Your task to perform on an android device: change your default location settings in chrome Image 0: 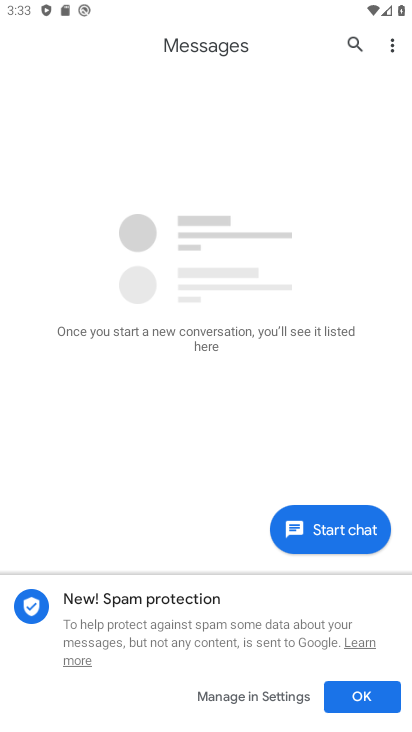
Step 0: press home button
Your task to perform on an android device: change your default location settings in chrome Image 1: 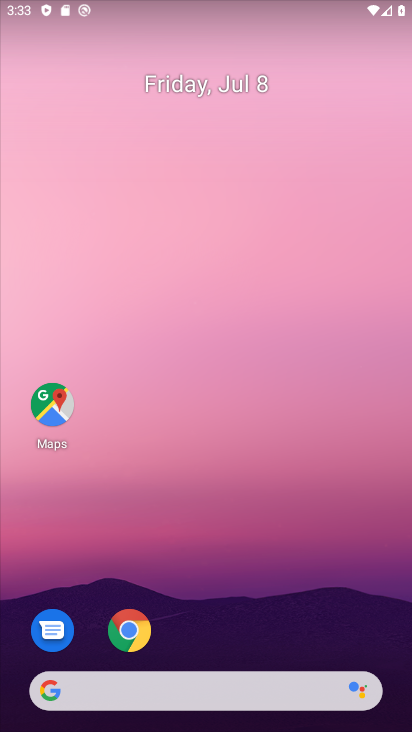
Step 1: click (127, 635)
Your task to perform on an android device: change your default location settings in chrome Image 2: 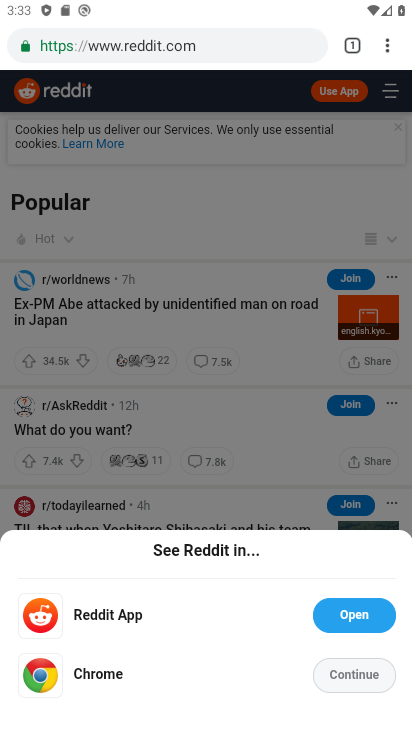
Step 2: click (384, 53)
Your task to perform on an android device: change your default location settings in chrome Image 3: 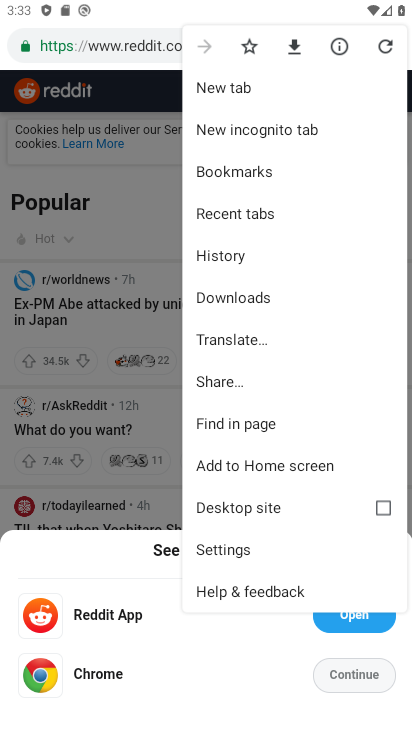
Step 3: click (214, 546)
Your task to perform on an android device: change your default location settings in chrome Image 4: 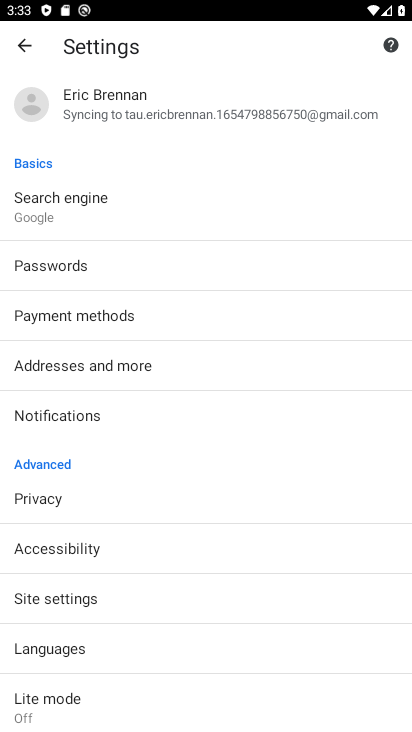
Step 4: click (90, 596)
Your task to perform on an android device: change your default location settings in chrome Image 5: 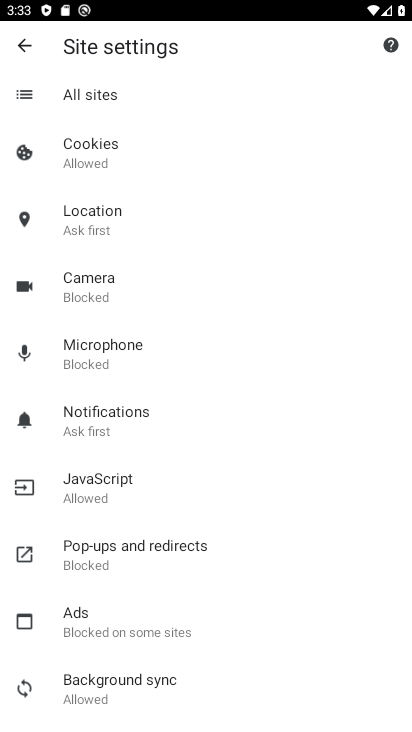
Step 5: click (85, 225)
Your task to perform on an android device: change your default location settings in chrome Image 6: 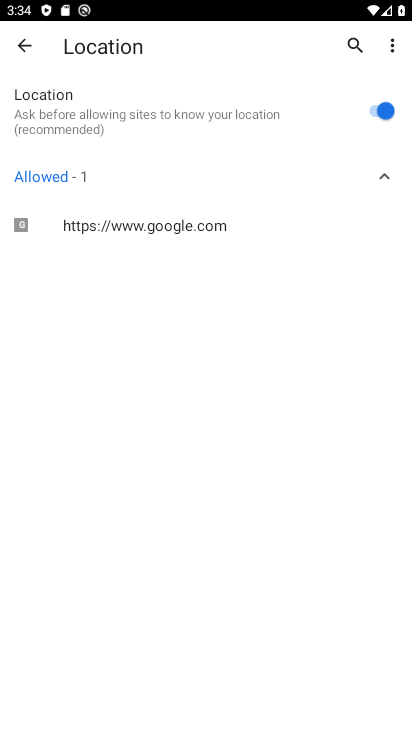
Step 6: click (373, 108)
Your task to perform on an android device: change your default location settings in chrome Image 7: 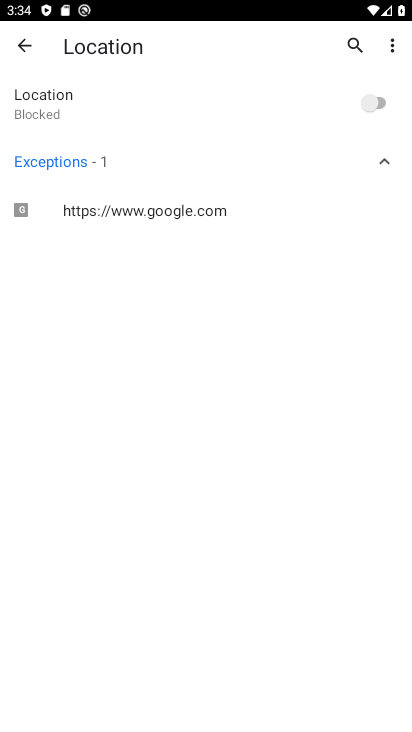
Step 7: task complete